Your task to perform on an android device: delete the emails in spam in the gmail app Image 0: 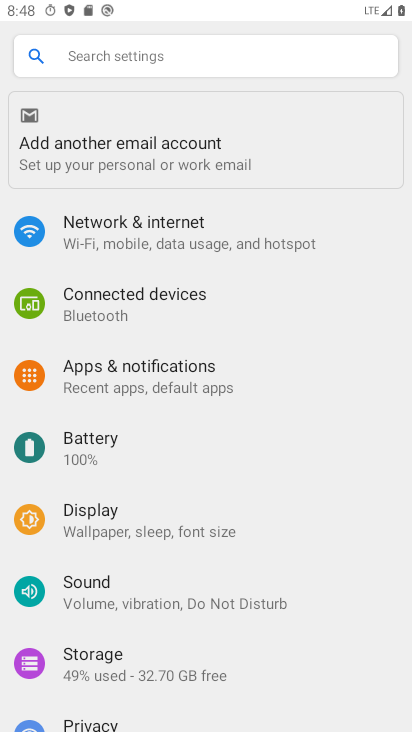
Step 0: press home button
Your task to perform on an android device: delete the emails in spam in the gmail app Image 1: 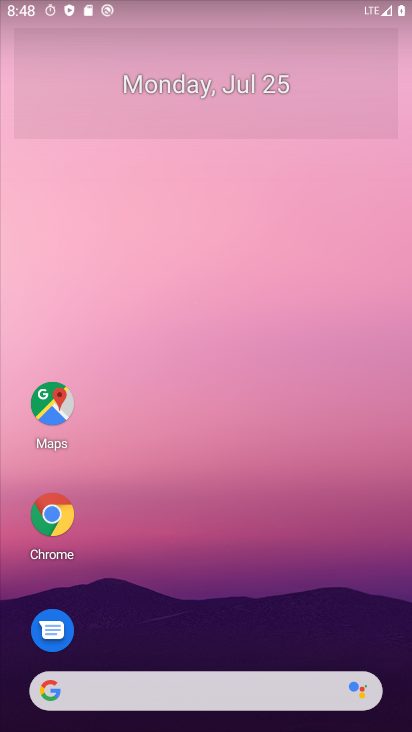
Step 1: drag from (28, 616) to (206, 8)
Your task to perform on an android device: delete the emails in spam in the gmail app Image 2: 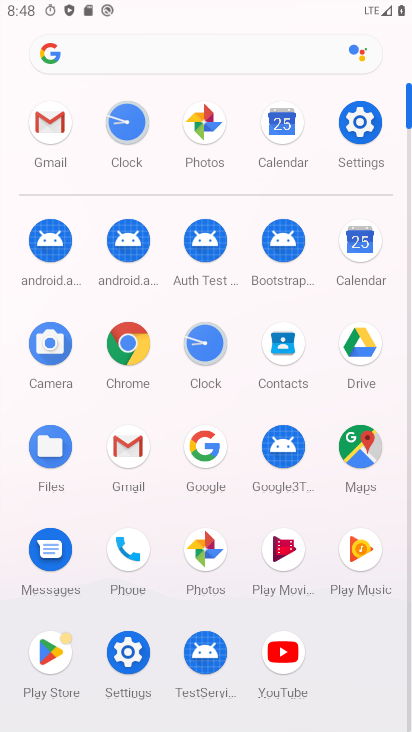
Step 2: click (132, 449)
Your task to perform on an android device: delete the emails in spam in the gmail app Image 3: 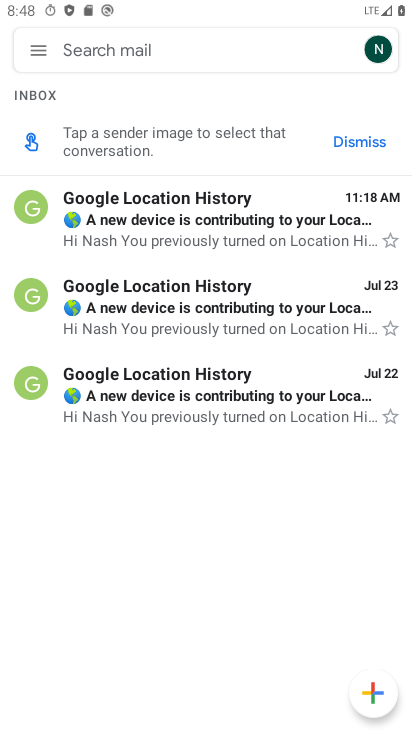
Step 3: click (51, 63)
Your task to perform on an android device: delete the emails in spam in the gmail app Image 4: 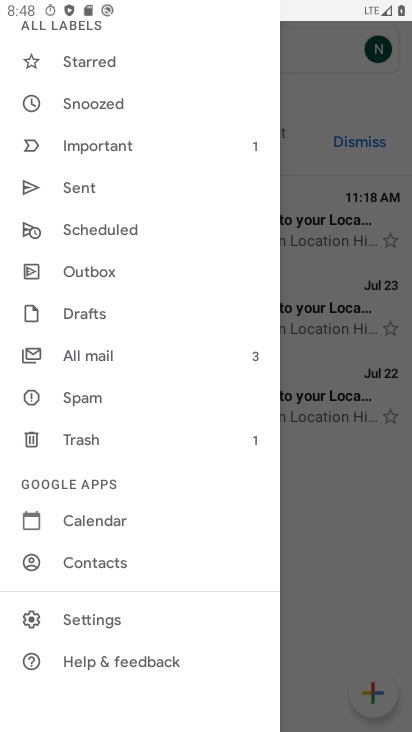
Step 4: click (82, 392)
Your task to perform on an android device: delete the emails in spam in the gmail app Image 5: 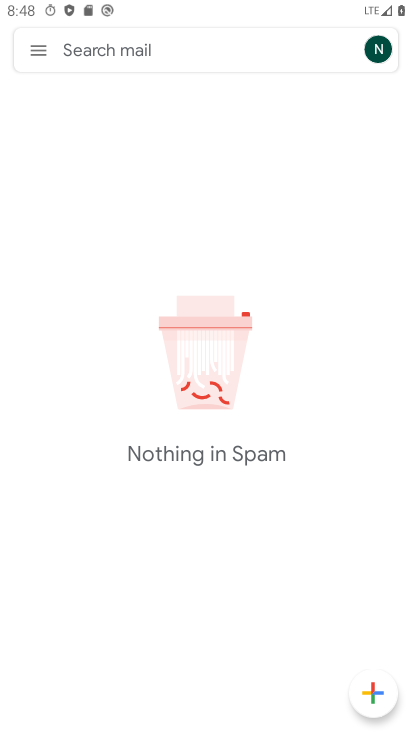
Step 5: task complete